Your task to perform on an android device: Open Google Maps Image 0: 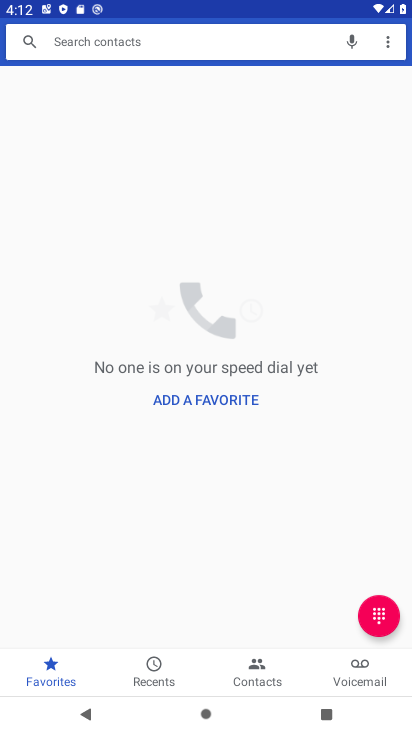
Step 0: press home button
Your task to perform on an android device: Open Google Maps Image 1: 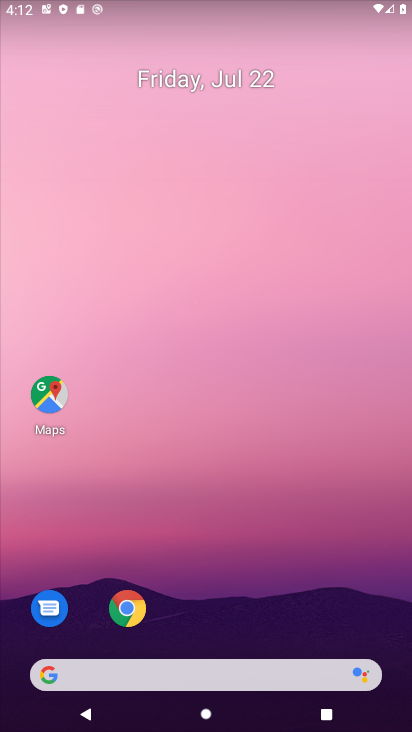
Step 1: drag from (241, 726) to (260, 129)
Your task to perform on an android device: Open Google Maps Image 2: 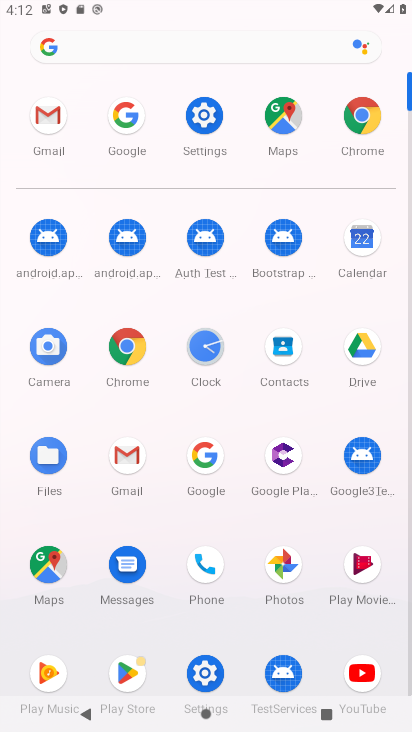
Step 2: click (45, 559)
Your task to perform on an android device: Open Google Maps Image 3: 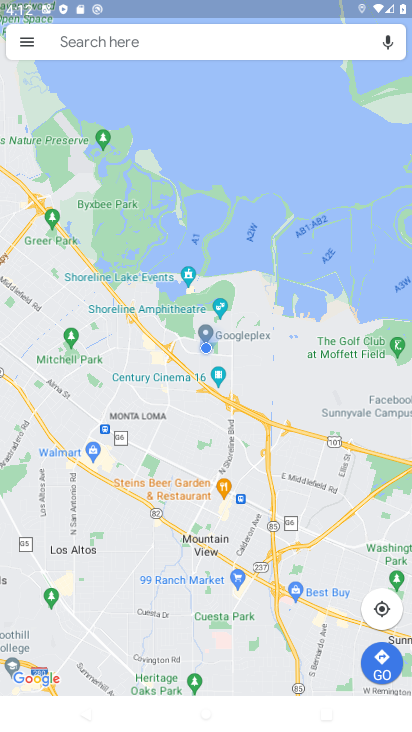
Step 3: task complete